Your task to perform on an android device: Open display settings Image 0: 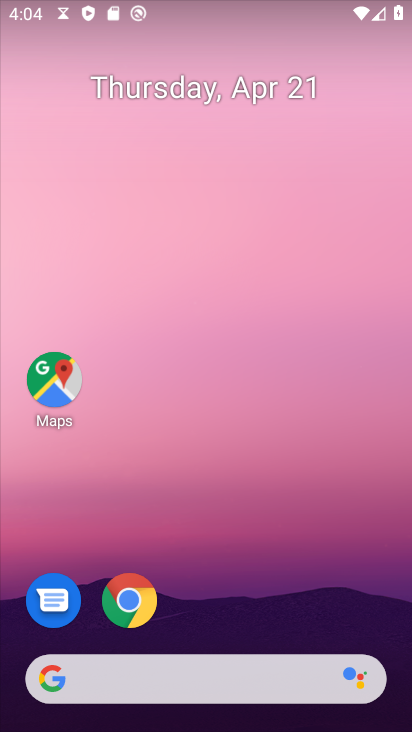
Step 0: drag from (256, 581) to (291, 38)
Your task to perform on an android device: Open display settings Image 1: 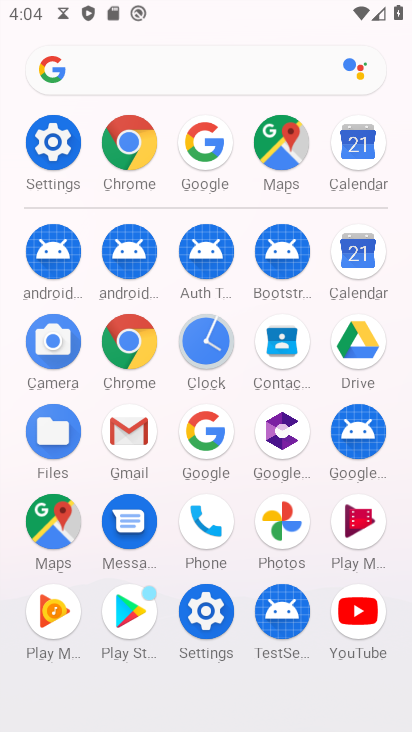
Step 1: click (53, 140)
Your task to perform on an android device: Open display settings Image 2: 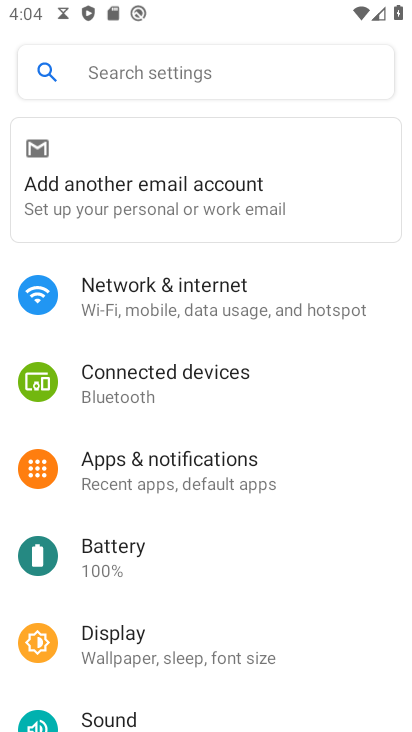
Step 2: click (119, 637)
Your task to perform on an android device: Open display settings Image 3: 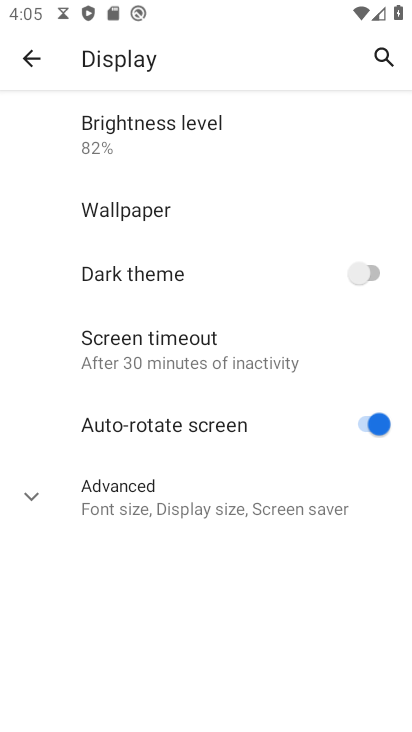
Step 3: task complete